Your task to perform on an android device: turn on the 12-hour format for clock Image 0: 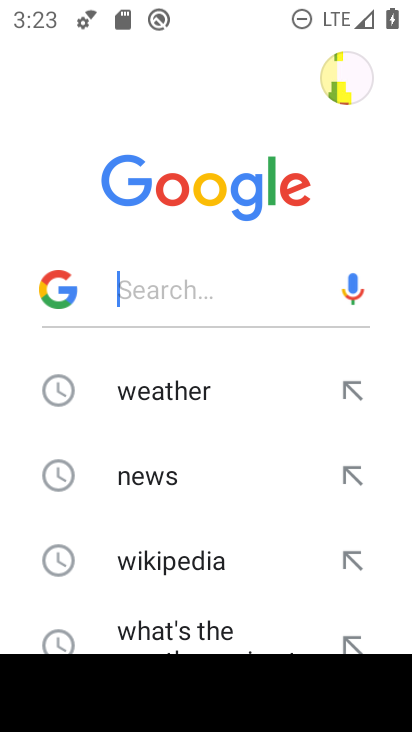
Step 0: press home button
Your task to perform on an android device: turn on the 12-hour format for clock Image 1: 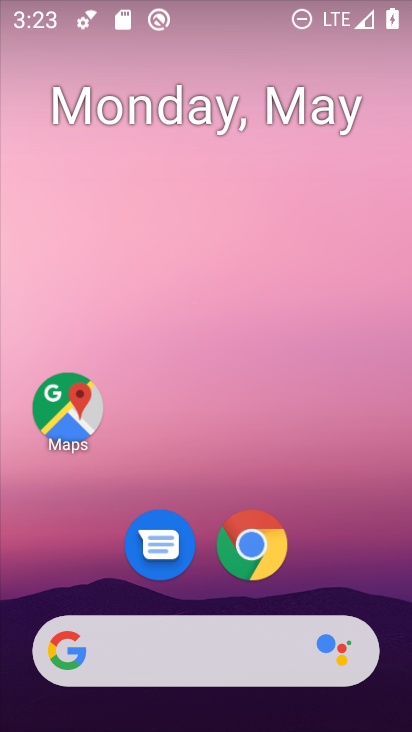
Step 1: drag from (316, 568) to (275, 81)
Your task to perform on an android device: turn on the 12-hour format for clock Image 2: 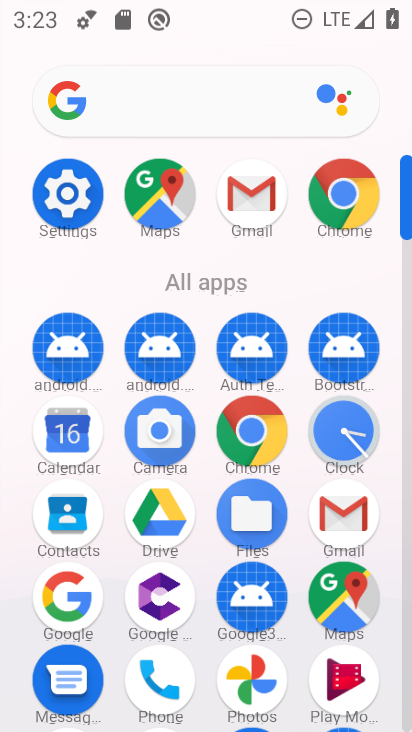
Step 2: drag from (170, 582) to (138, 311)
Your task to perform on an android device: turn on the 12-hour format for clock Image 3: 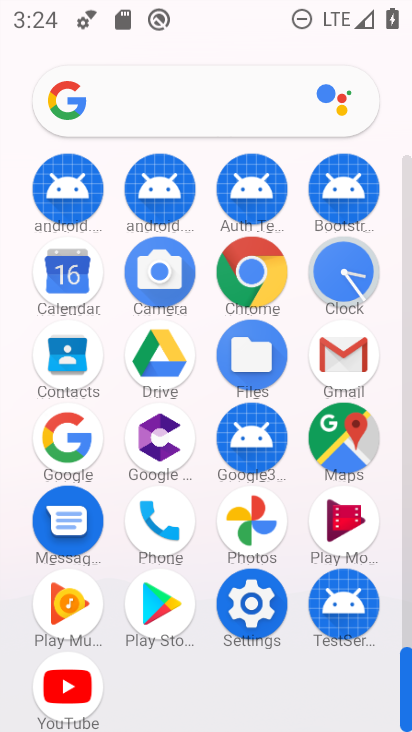
Step 3: click (352, 297)
Your task to perform on an android device: turn on the 12-hour format for clock Image 4: 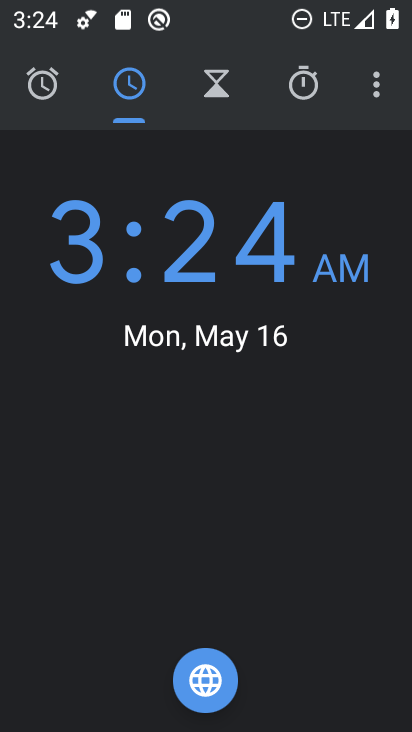
Step 4: click (376, 102)
Your task to perform on an android device: turn on the 12-hour format for clock Image 5: 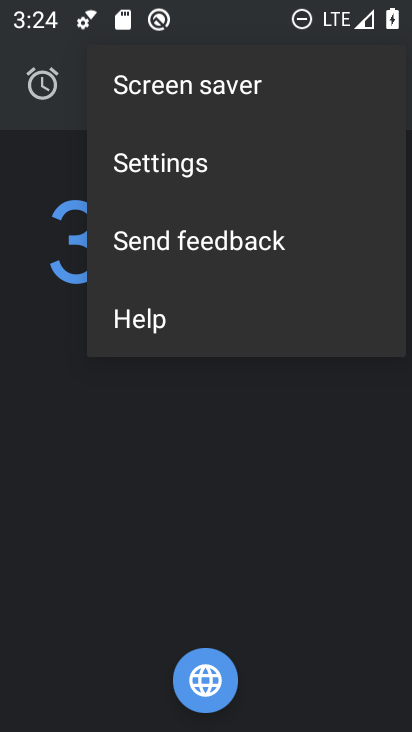
Step 5: click (193, 160)
Your task to perform on an android device: turn on the 12-hour format for clock Image 6: 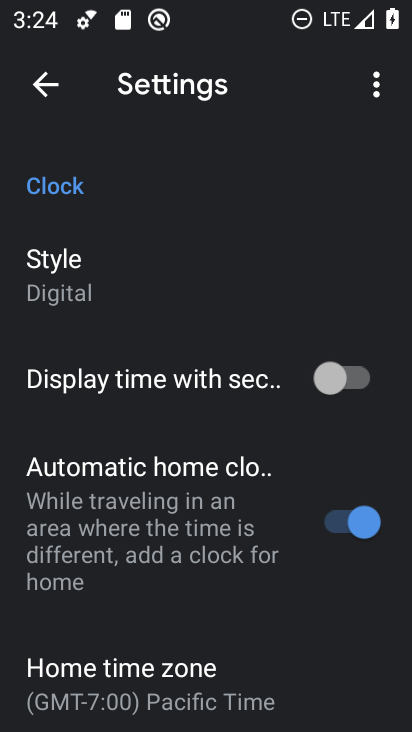
Step 6: drag from (250, 614) to (218, 323)
Your task to perform on an android device: turn on the 12-hour format for clock Image 7: 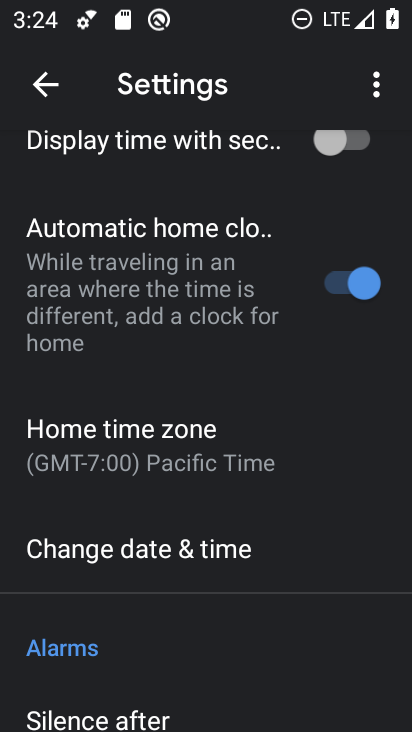
Step 7: click (167, 544)
Your task to perform on an android device: turn on the 12-hour format for clock Image 8: 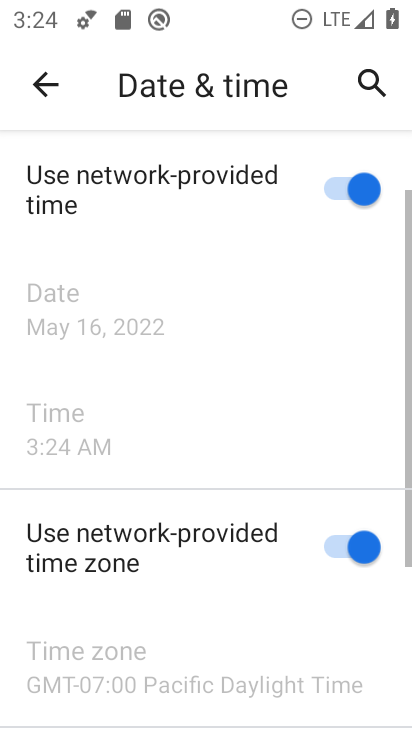
Step 8: task complete